Your task to perform on an android device: Go to battery settings Image 0: 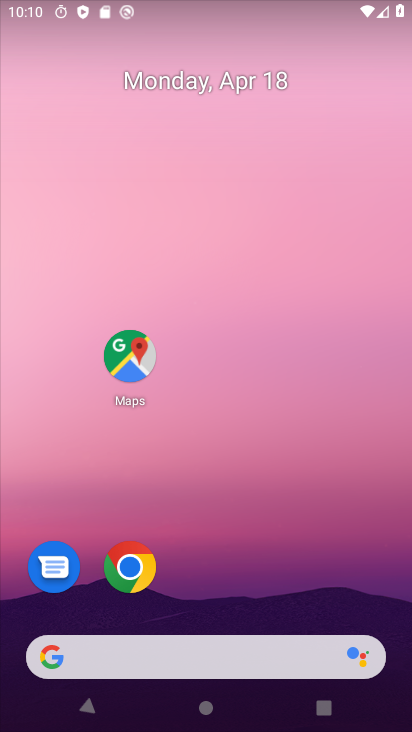
Step 0: drag from (253, 685) to (367, 235)
Your task to perform on an android device: Go to battery settings Image 1: 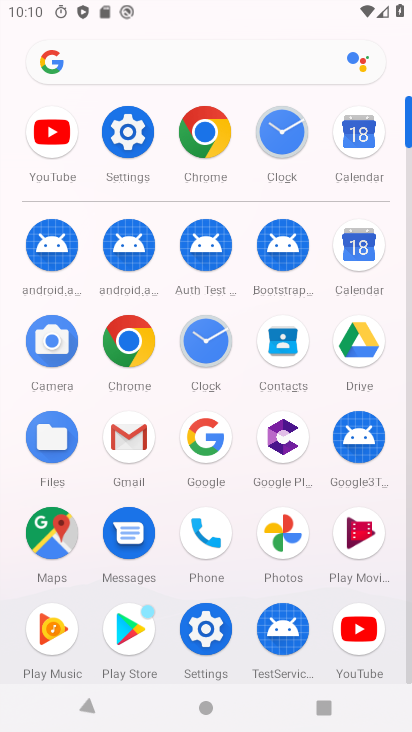
Step 1: click (140, 129)
Your task to perform on an android device: Go to battery settings Image 2: 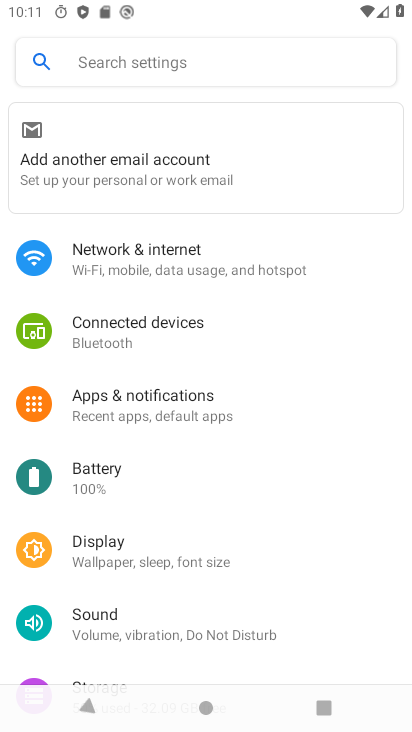
Step 2: click (115, 64)
Your task to perform on an android device: Go to battery settings Image 3: 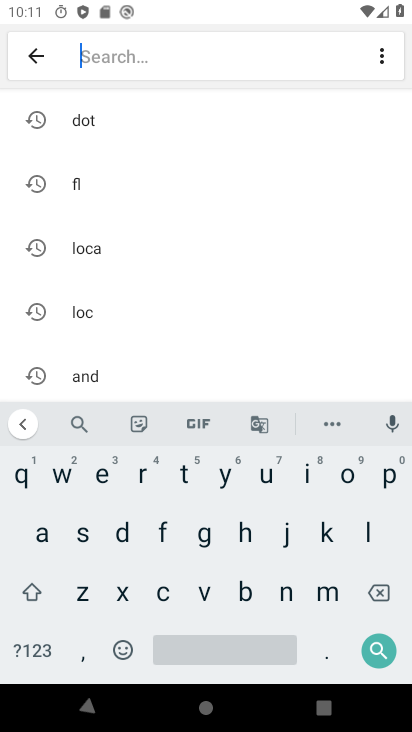
Step 3: click (242, 579)
Your task to perform on an android device: Go to battery settings Image 4: 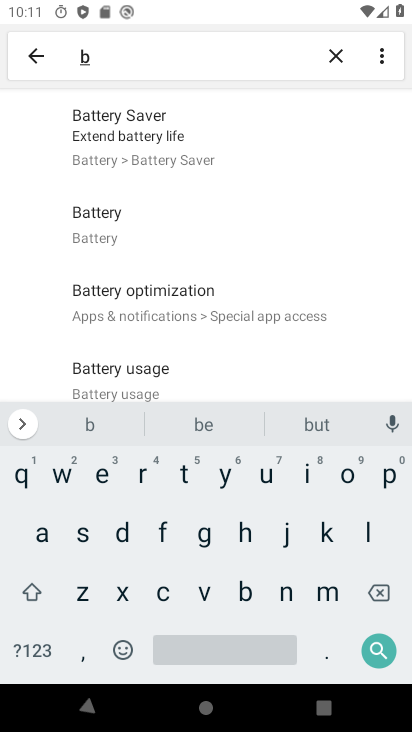
Step 4: click (138, 223)
Your task to perform on an android device: Go to battery settings Image 5: 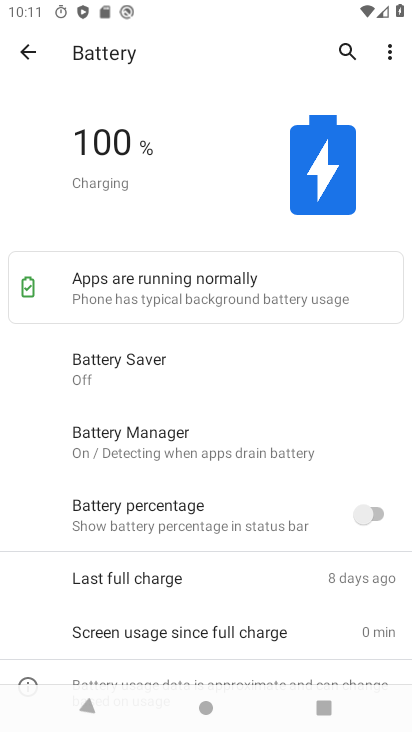
Step 5: task complete